Your task to perform on an android device: refresh tabs in the chrome app Image 0: 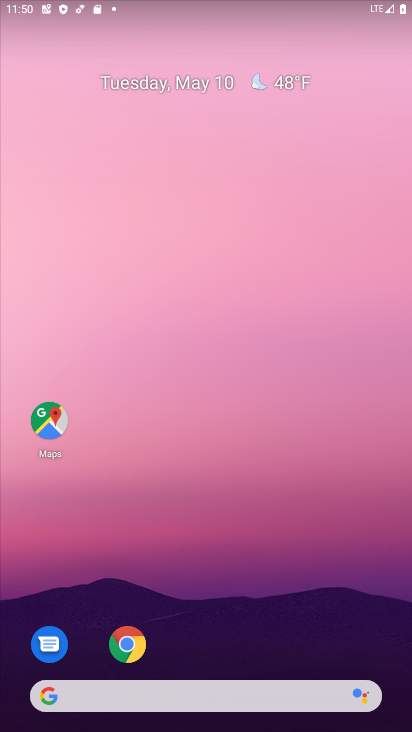
Step 0: click (130, 644)
Your task to perform on an android device: refresh tabs in the chrome app Image 1: 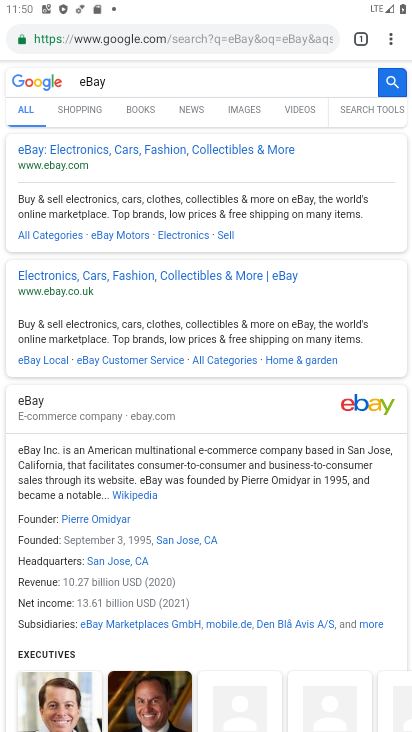
Step 1: click (394, 34)
Your task to perform on an android device: refresh tabs in the chrome app Image 2: 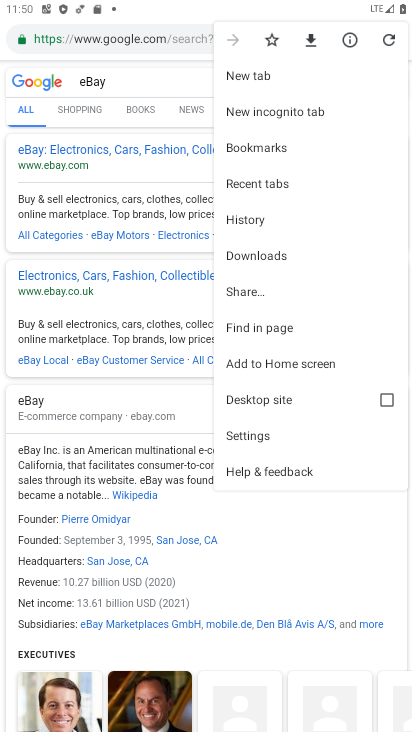
Step 2: click (386, 43)
Your task to perform on an android device: refresh tabs in the chrome app Image 3: 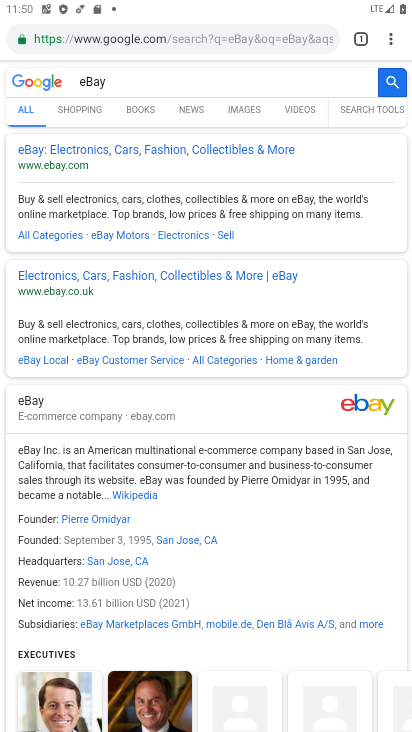
Step 3: task complete